Your task to perform on an android device: turn on wifi Image 0: 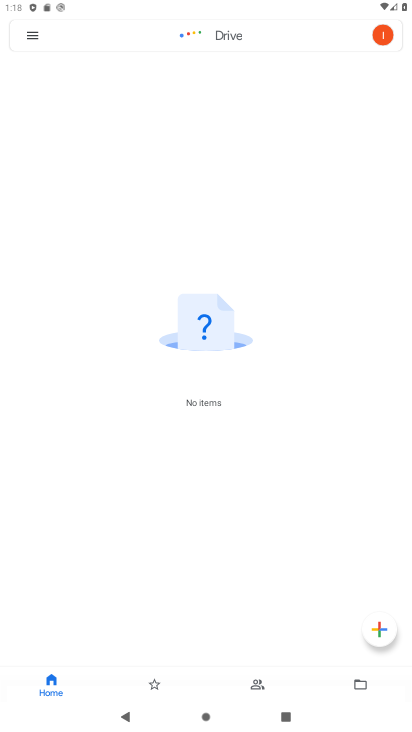
Step 0: drag from (202, 691) to (211, 212)
Your task to perform on an android device: turn on wifi Image 1: 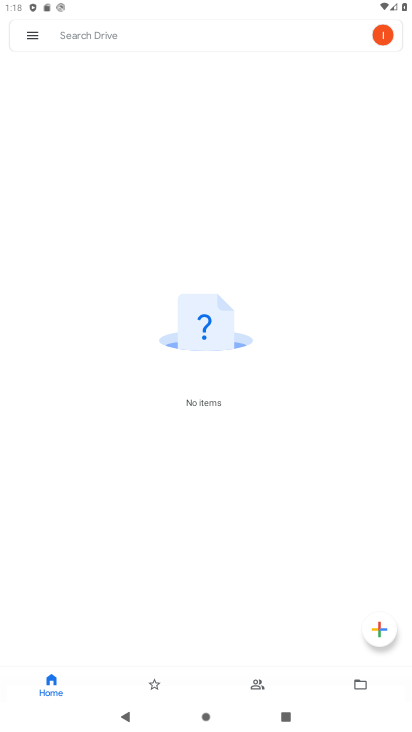
Step 1: press home button
Your task to perform on an android device: turn on wifi Image 2: 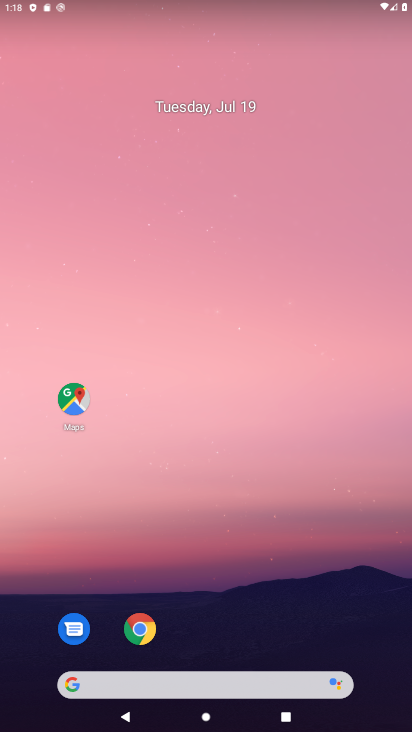
Step 2: drag from (206, 678) to (224, 184)
Your task to perform on an android device: turn on wifi Image 3: 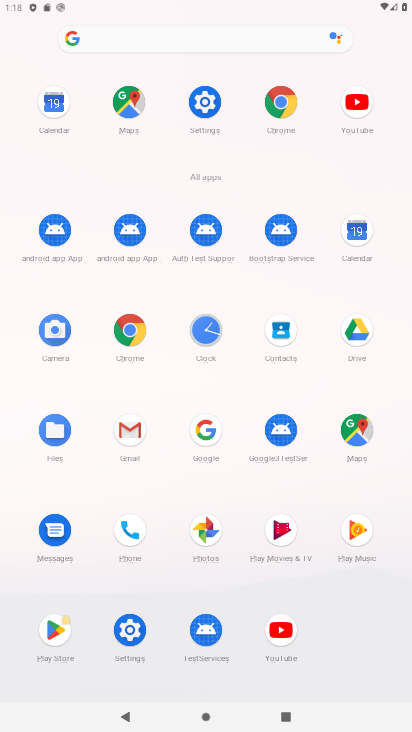
Step 3: click (217, 119)
Your task to perform on an android device: turn on wifi Image 4: 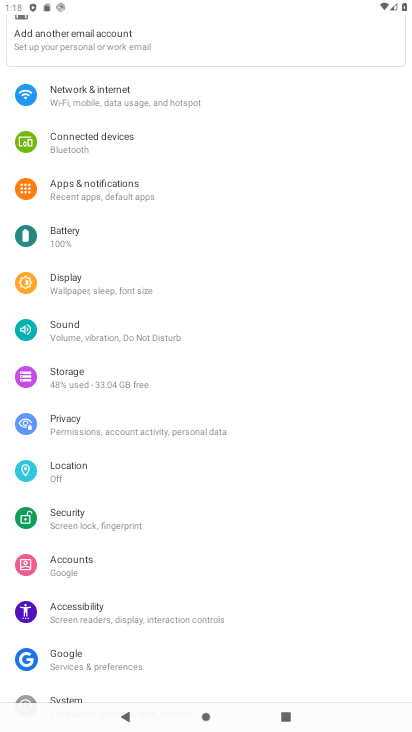
Step 4: click (91, 96)
Your task to perform on an android device: turn on wifi Image 5: 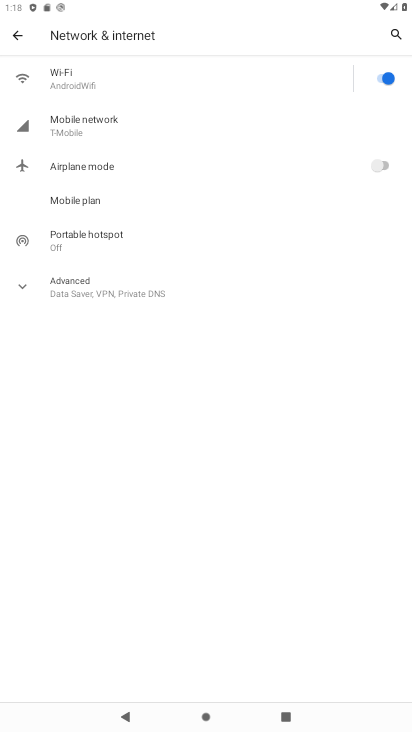
Step 5: task complete